Your task to perform on an android device: turn off sleep mode Image 0: 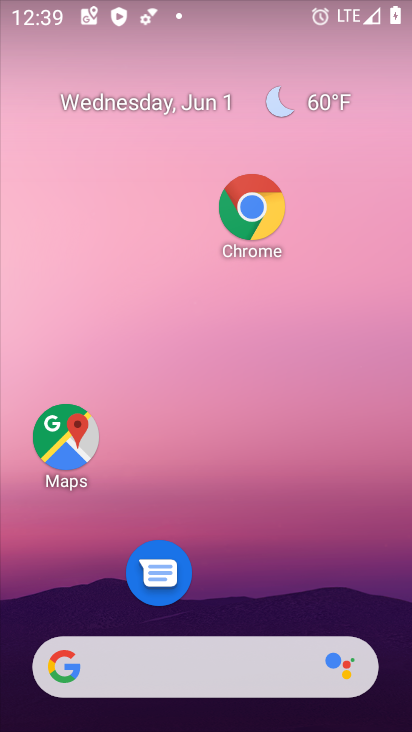
Step 0: drag from (215, 604) to (204, 177)
Your task to perform on an android device: turn off sleep mode Image 1: 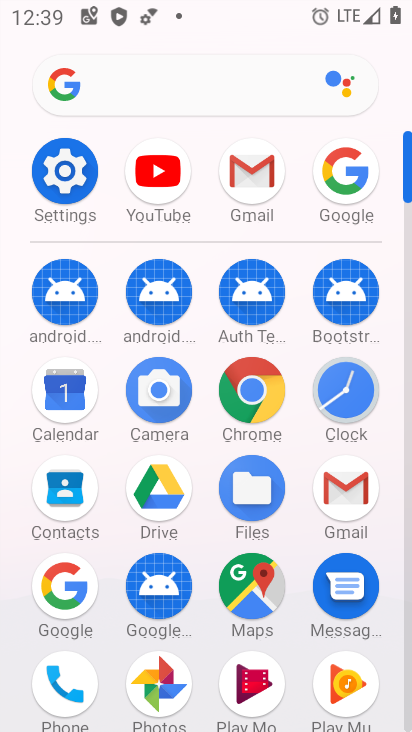
Step 1: click (64, 166)
Your task to perform on an android device: turn off sleep mode Image 2: 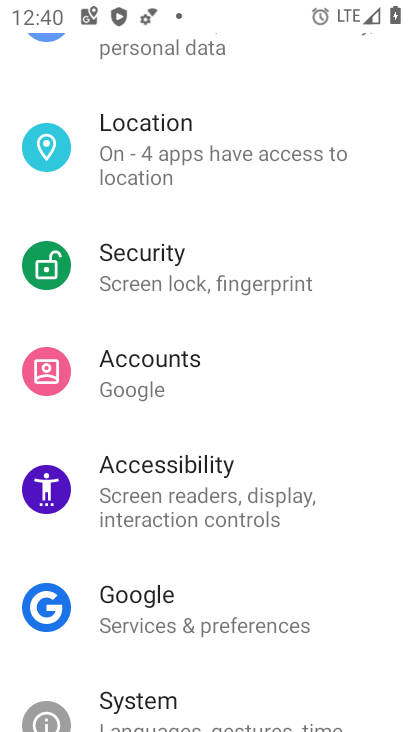
Step 2: drag from (257, 147) to (256, 408)
Your task to perform on an android device: turn off sleep mode Image 3: 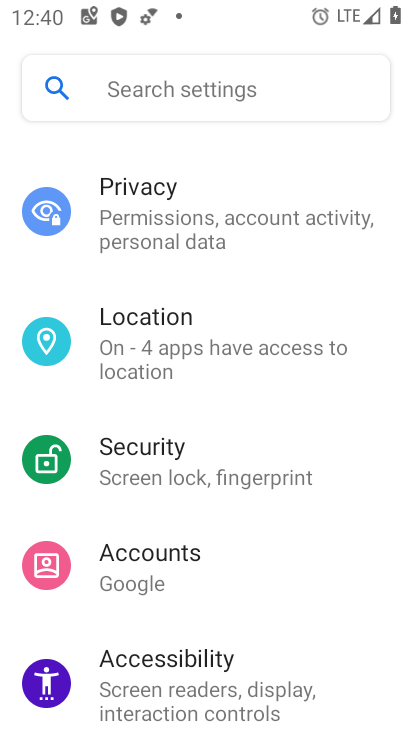
Step 3: drag from (212, 248) to (213, 534)
Your task to perform on an android device: turn off sleep mode Image 4: 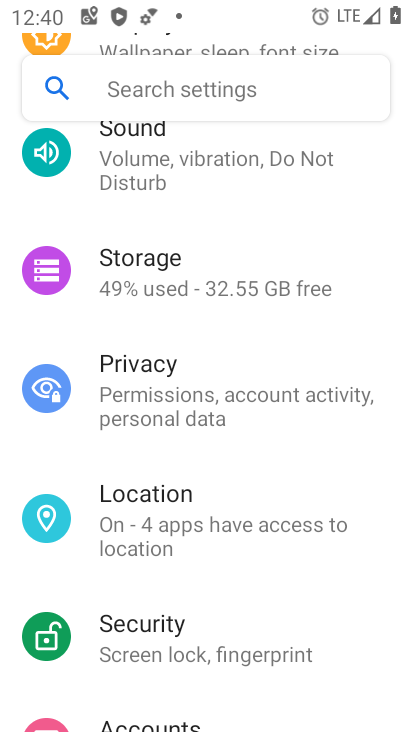
Step 4: drag from (242, 233) to (250, 480)
Your task to perform on an android device: turn off sleep mode Image 5: 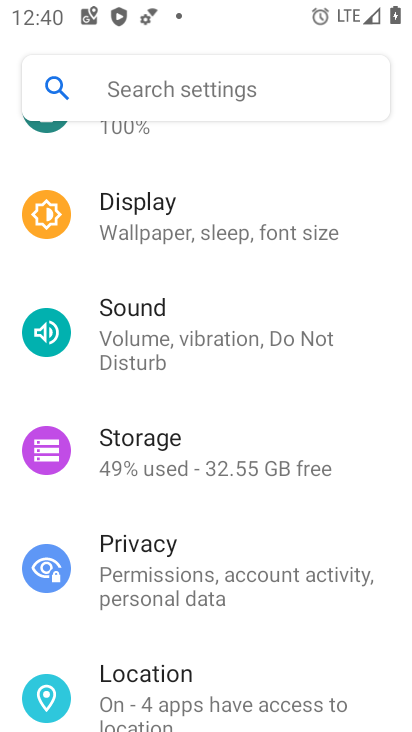
Step 5: click (189, 232)
Your task to perform on an android device: turn off sleep mode Image 6: 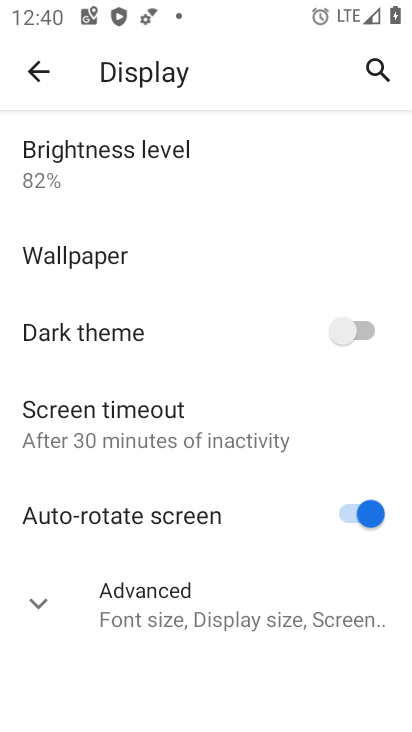
Step 6: click (144, 400)
Your task to perform on an android device: turn off sleep mode Image 7: 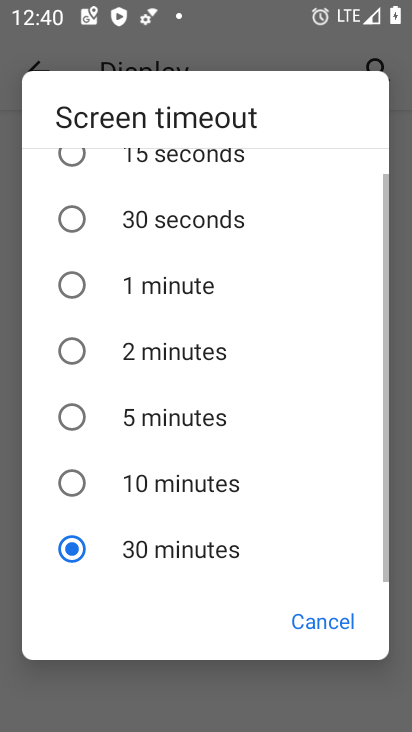
Step 7: click (144, 400)
Your task to perform on an android device: turn off sleep mode Image 8: 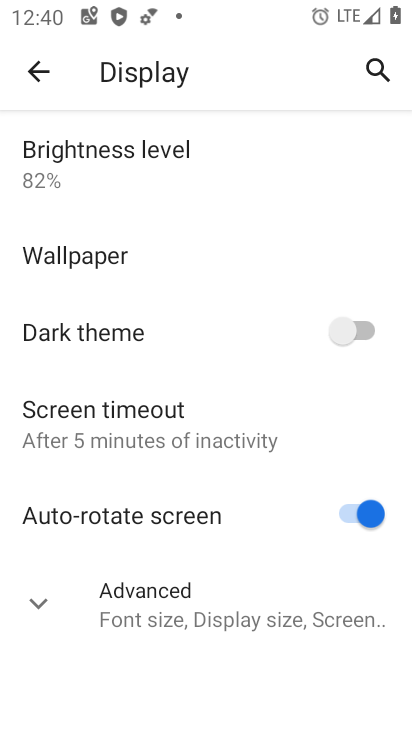
Step 8: task complete